Your task to perform on an android device: turn on location history Image 0: 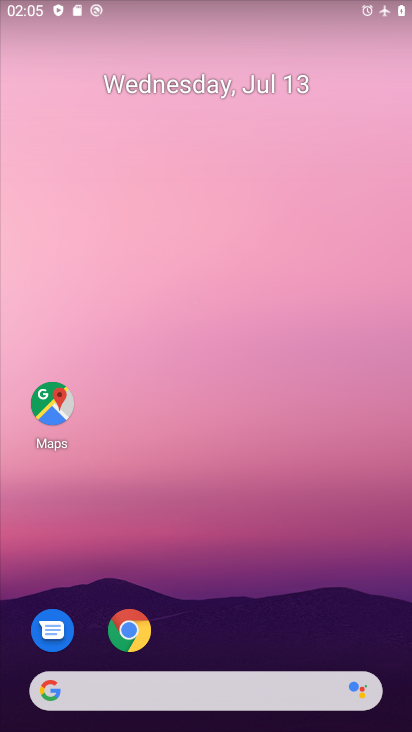
Step 0: drag from (204, 594) to (164, 202)
Your task to perform on an android device: turn on location history Image 1: 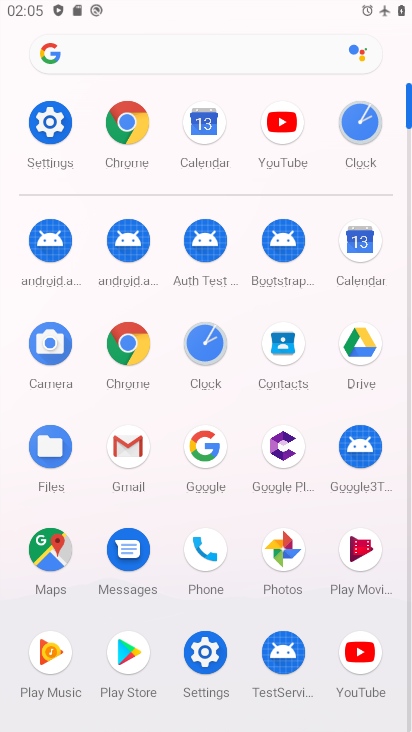
Step 1: click (51, 137)
Your task to perform on an android device: turn on location history Image 2: 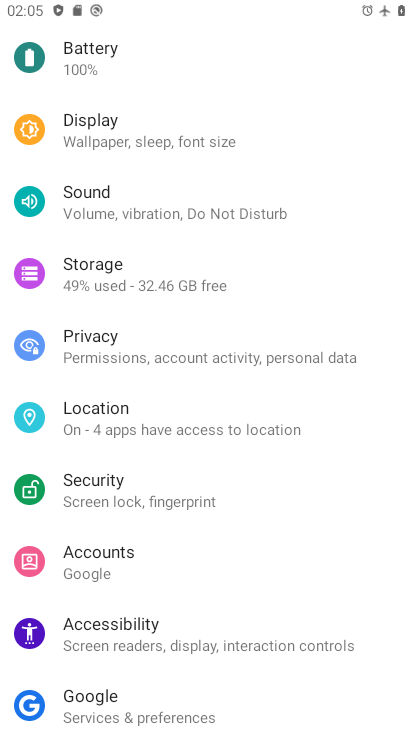
Step 2: drag from (168, 601) to (167, 355)
Your task to perform on an android device: turn on location history Image 3: 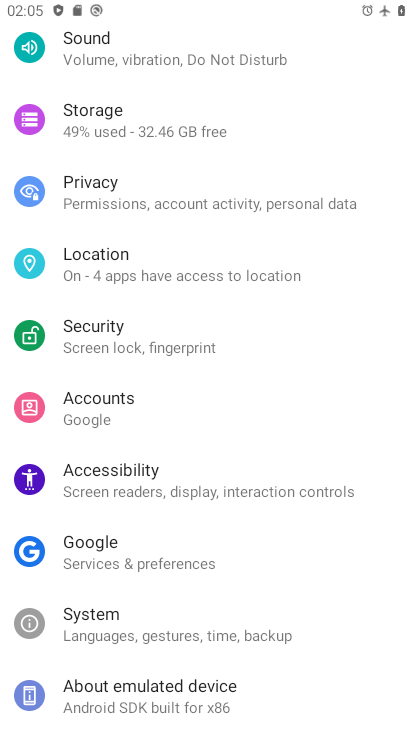
Step 3: click (136, 279)
Your task to perform on an android device: turn on location history Image 4: 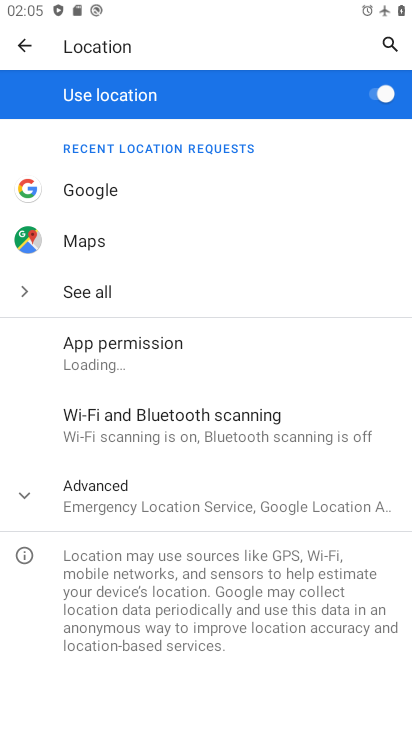
Step 4: click (161, 494)
Your task to perform on an android device: turn on location history Image 5: 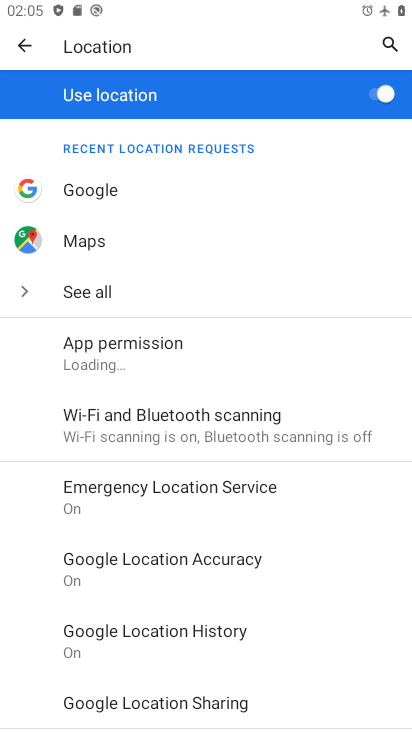
Step 5: click (239, 627)
Your task to perform on an android device: turn on location history Image 6: 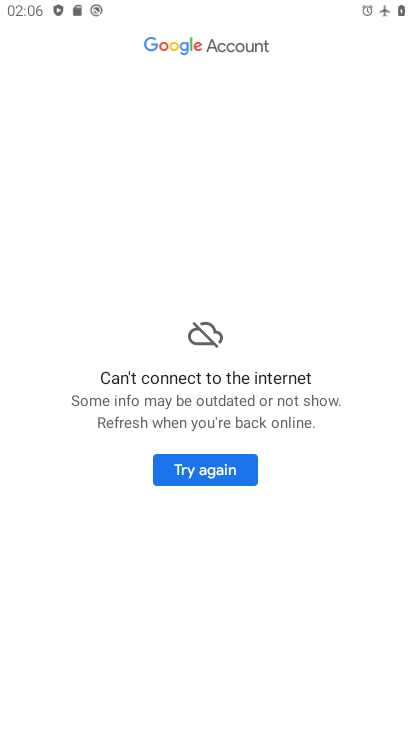
Step 6: task complete